Your task to perform on an android device: Go to Wikipedia Image 0: 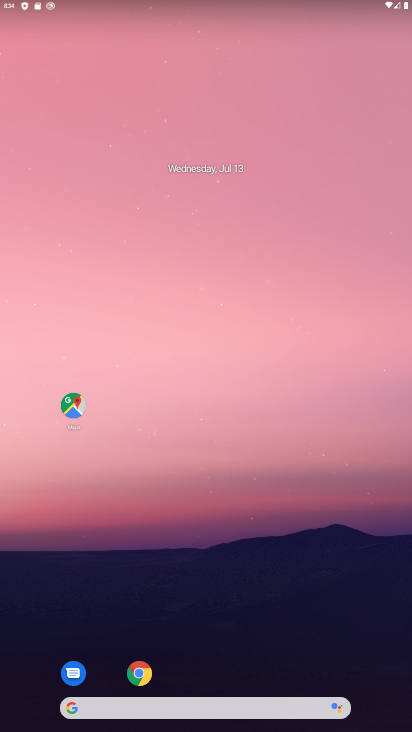
Step 0: click (138, 672)
Your task to perform on an android device: Go to Wikipedia Image 1: 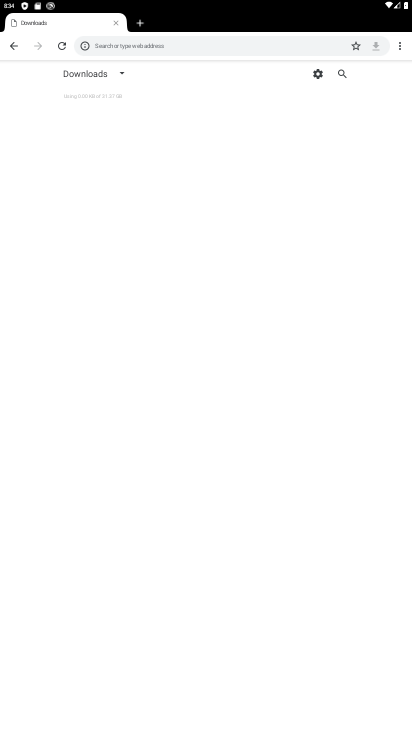
Step 1: click (143, 27)
Your task to perform on an android device: Go to Wikipedia Image 2: 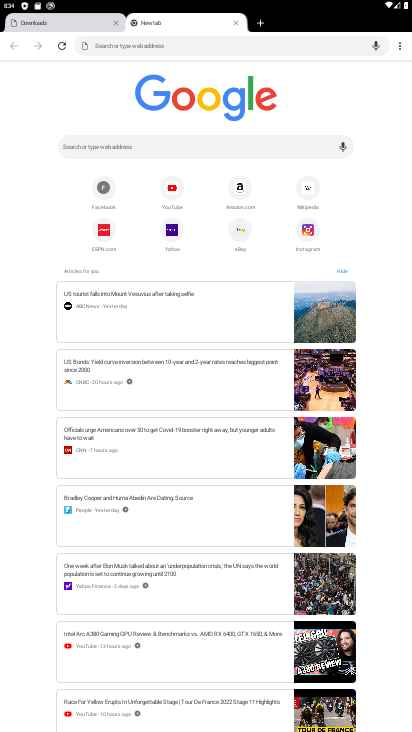
Step 2: click (309, 197)
Your task to perform on an android device: Go to Wikipedia Image 3: 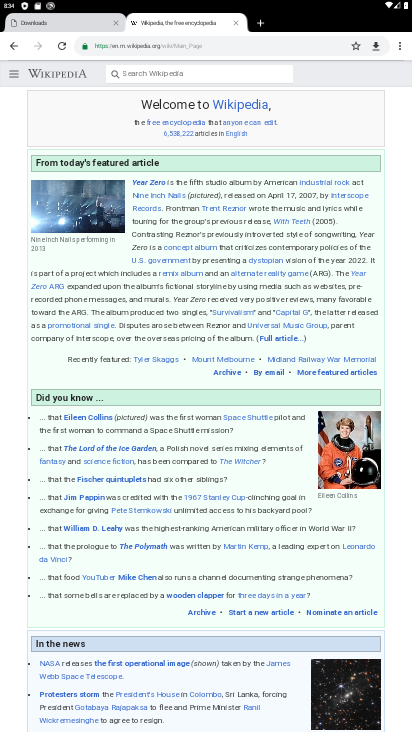
Step 3: task complete